Your task to perform on an android device: turn off notifications settings in the gmail app Image 0: 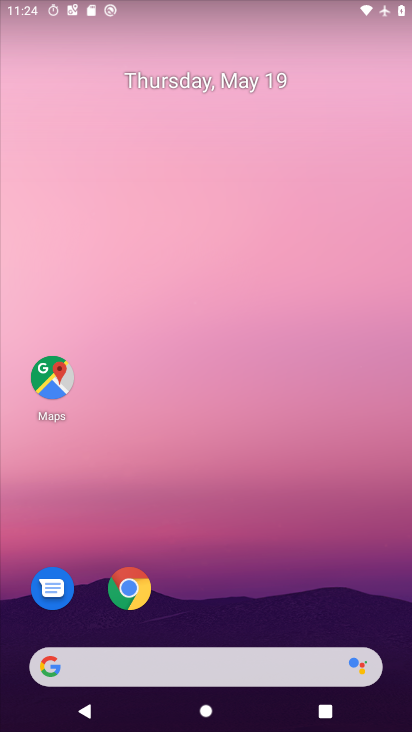
Step 0: press home button
Your task to perform on an android device: turn off notifications settings in the gmail app Image 1: 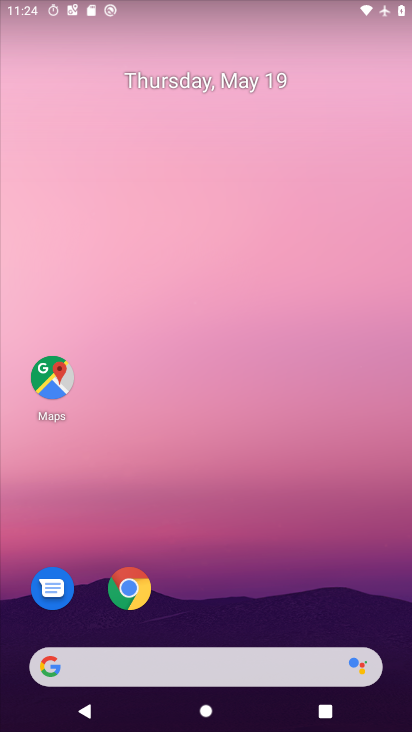
Step 1: drag from (148, 675) to (317, 180)
Your task to perform on an android device: turn off notifications settings in the gmail app Image 2: 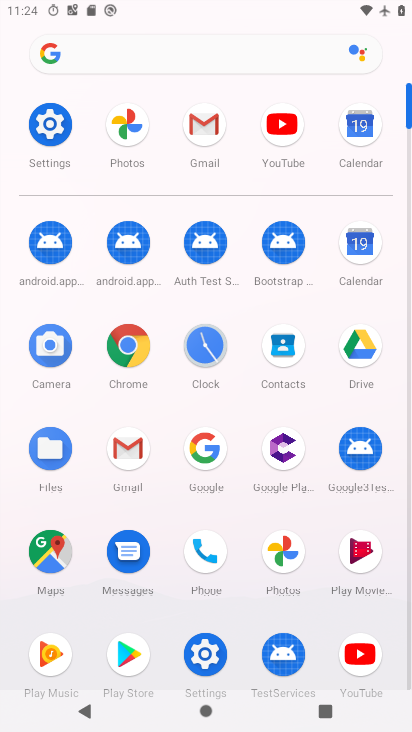
Step 2: click (202, 138)
Your task to perform on an android device: turn off notifications settings in the gmail app Image 3: 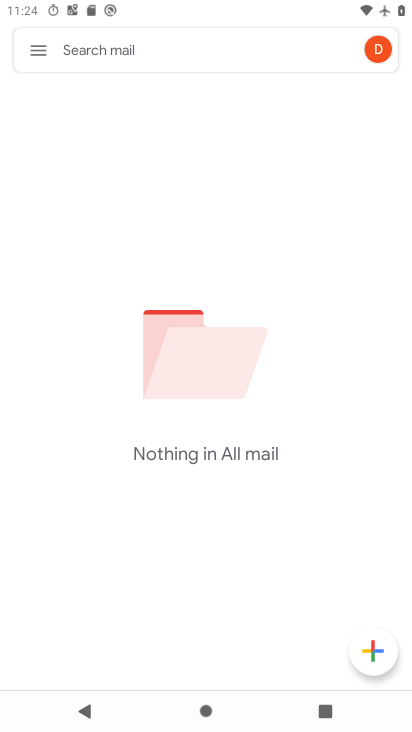
Step 3: click (40, 53)
Your task to perform on an android device: turn off notifications settings in the gmail app Image 4: 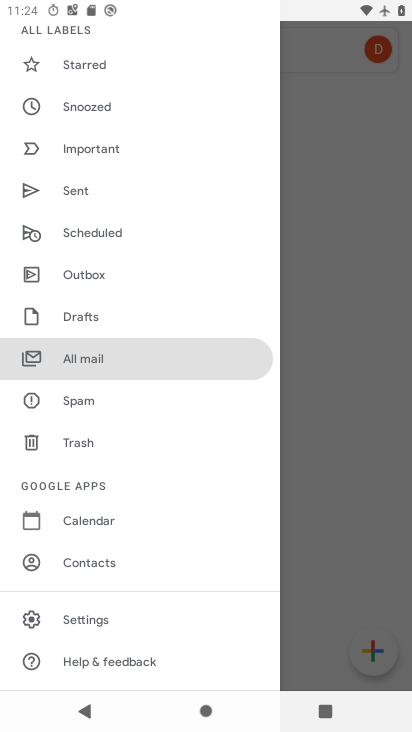
Step 4: click (108, 623)
Your task to perform on an android device: turn off notifications settings in the gmail app Image 5: 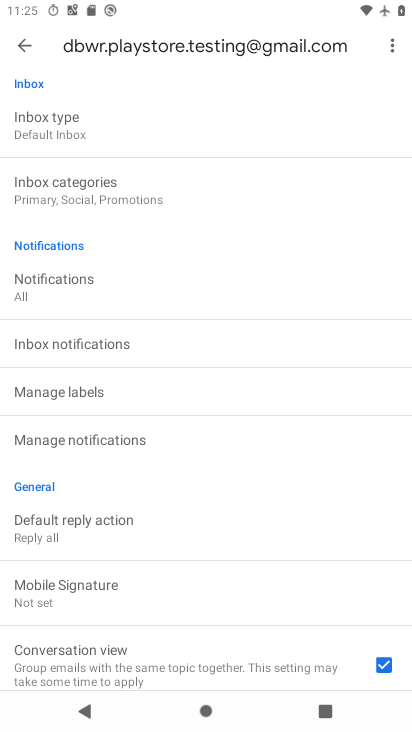
Step 5: click (67, 285)
Your task to perform on an android device: turn off notifications settings in the gmail app Image 6: 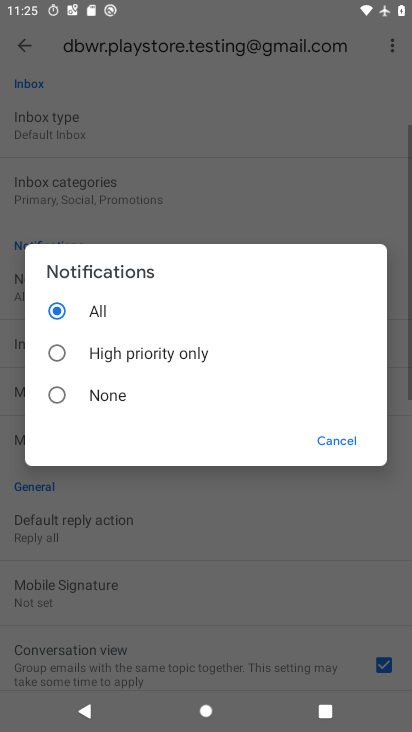
Step 6: click (56, 396)
Your task to perform on an android device: turn off notifications settings in the gmail app Image 7: 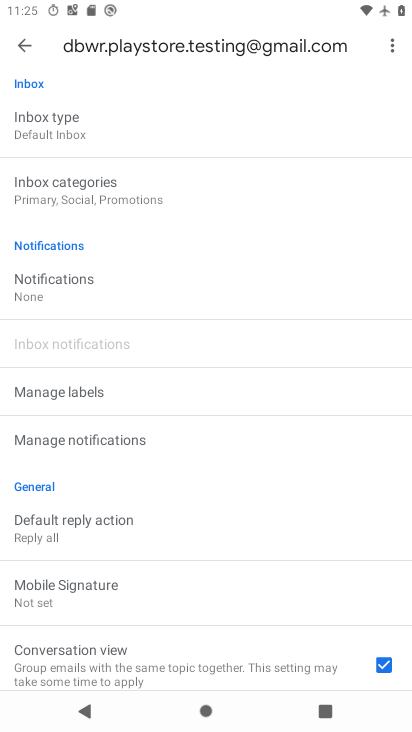
Step 7: task complete